Your task to perform on an android device: Open Amazon Image 0: 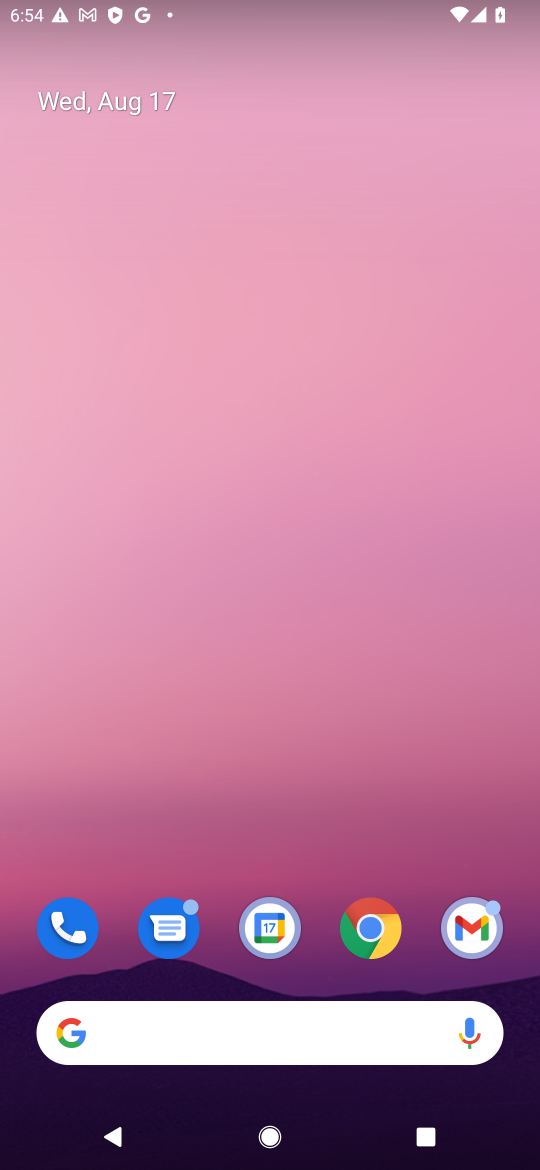
Step 0: click (381, 938)
Your task to perform on an android device: Open Amazon Image 1: 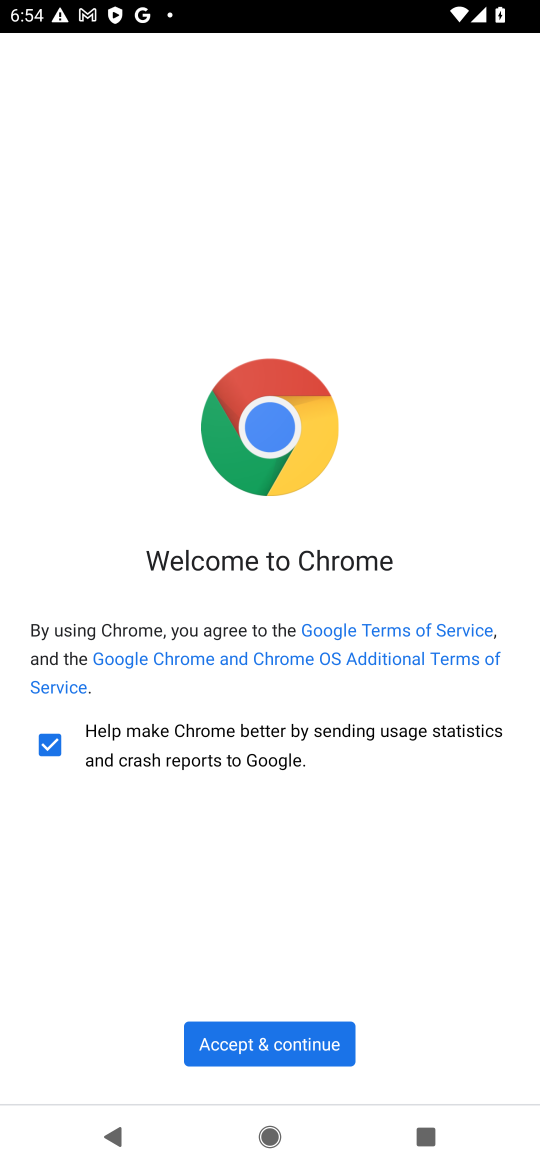
Step 1: click (304, 1052)
Your task to perform on an android device: Open Amazon Image 2: 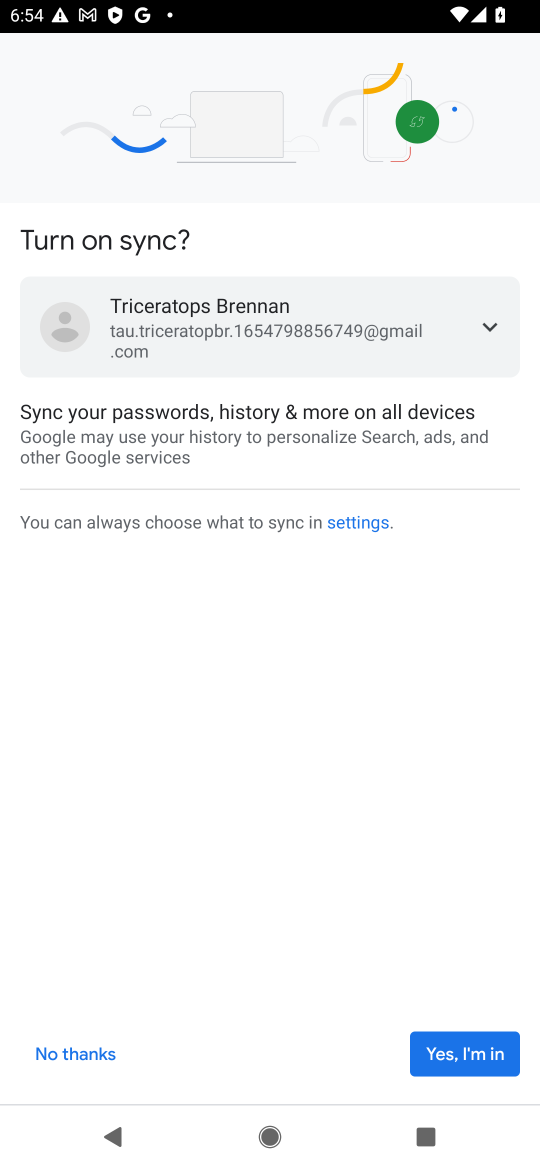
Step 2: click (427, 1062)
Your task to perform on an android device: Open Amazon Image 3: 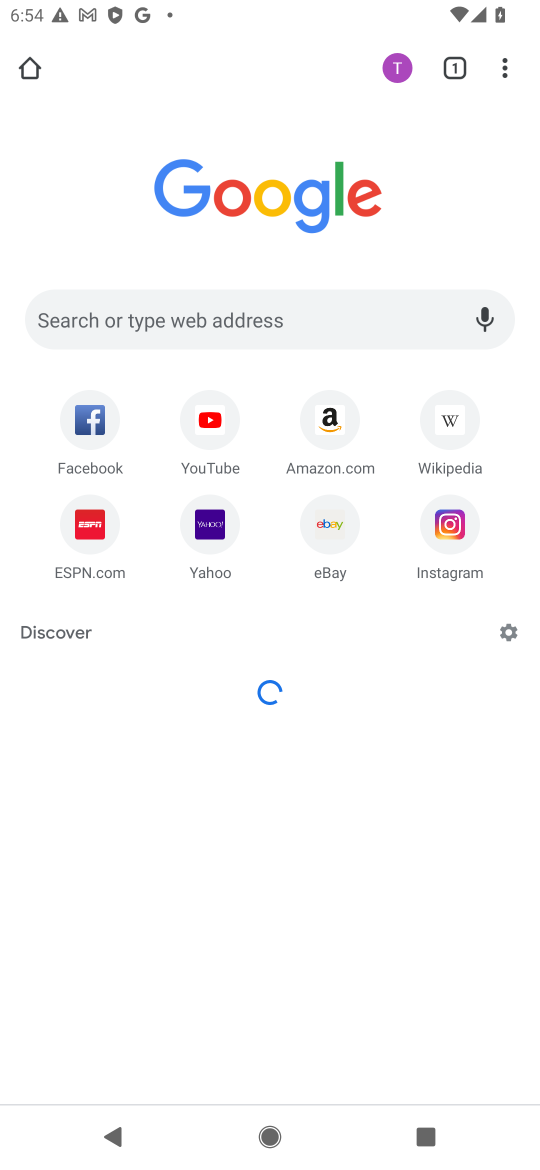
Step 3: click (331, 420)
Your task to perform on an android device: Open Amazon Image 4: 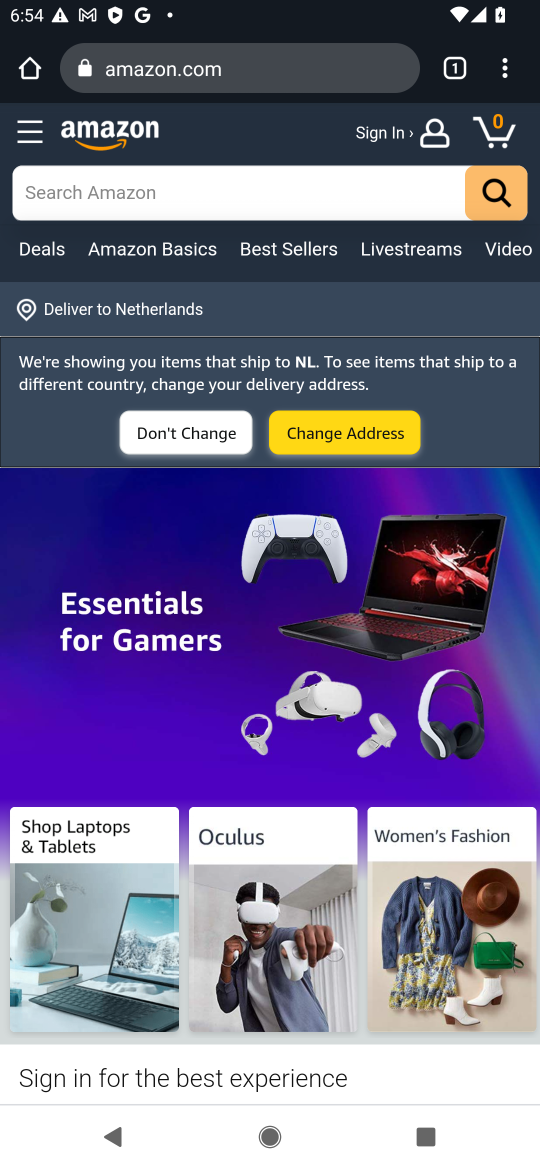
Step 4: task complete